Your task to perform on an android device: Go to calendar. Show me events next week Image 0: 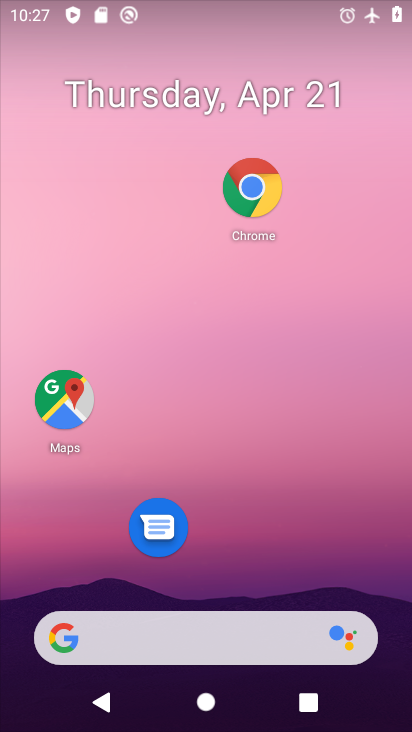
Step 0: drag from (275, 621) to (344, 167)
Your task to perform on an android device: Go to calendar. Show me events next week Image 1: 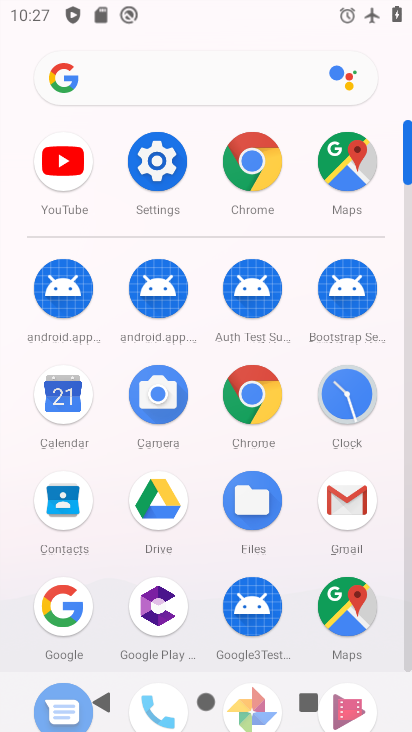
Step 1: click (67, 422)
Your task to perform on an android device: Go to calendar. Show me events next week Image 2: 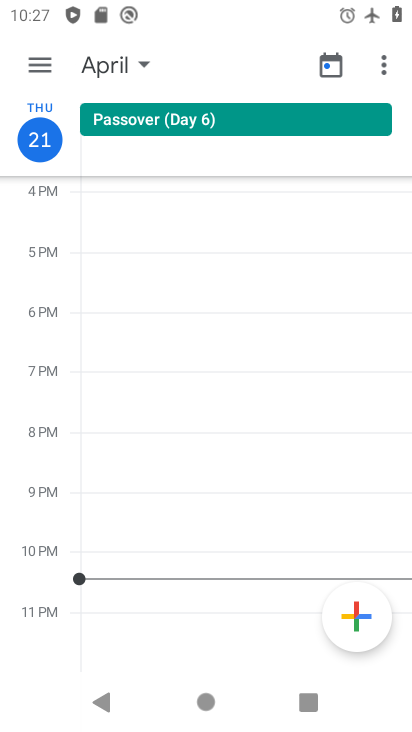
Step 2: click (148, 66)
Your task to perform on an android device: Go to calendar. Show me events next week Image 3: 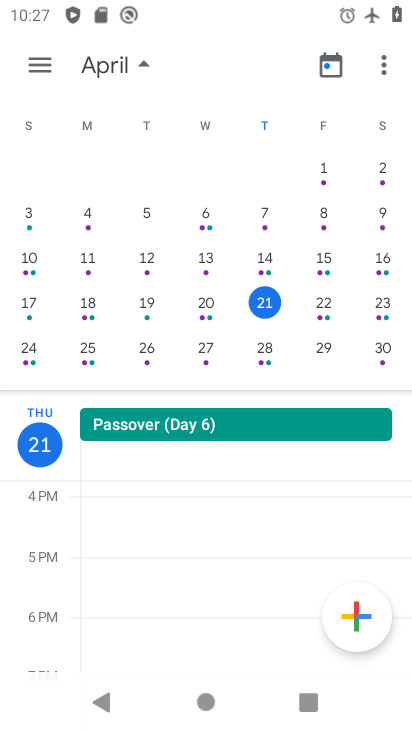
Step 3: click (347, 320)
Your task to perform on an android device: Go to calendar. Show me events next week Image 4: 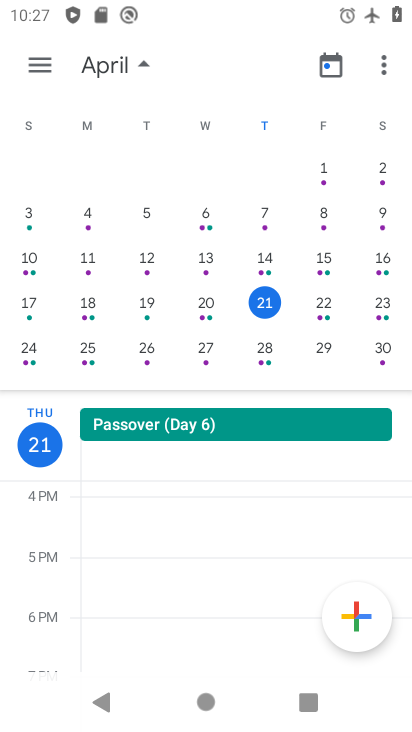
Step 4: click (32, 363)
Your task to perform on an android device: Go to calendar. Show me events next week Image 5: 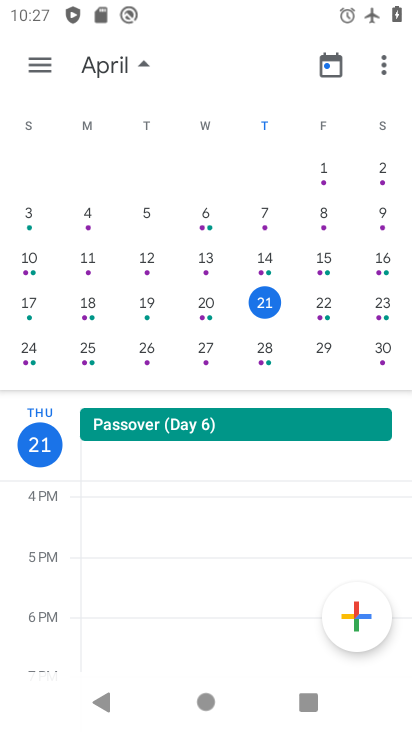
Step 5: click (32, 363)
Your task to perform on an android device: Go to calendar. Show me events next week Image 6: 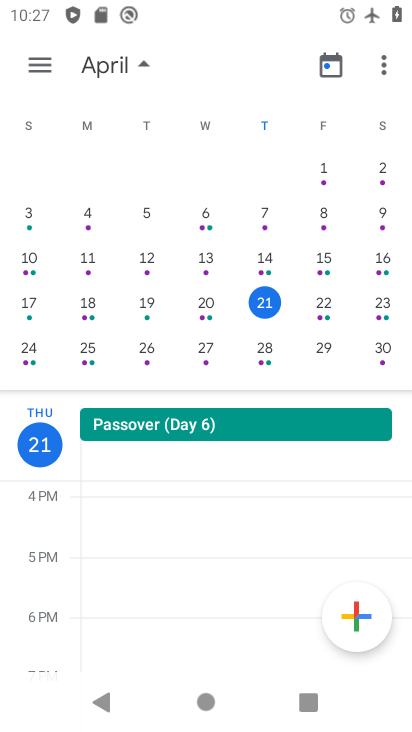
Step 6: click (33, 361)
Your task to perform on an android device: Go to calendar. Show me events next week Image 7: 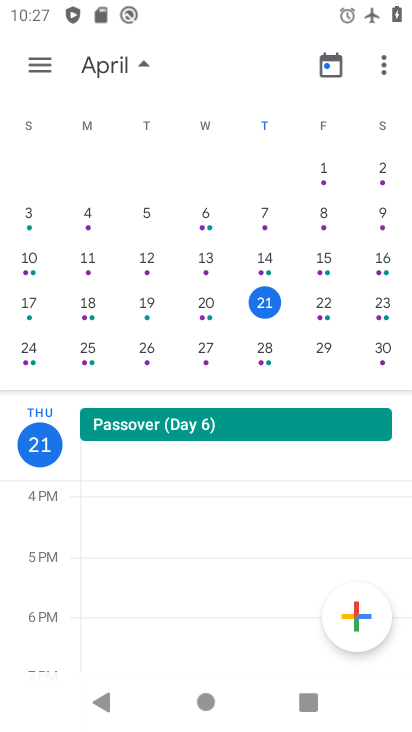
Step 7: click (33, 361)
Your task to perform on an android device: Go to calendar. Show me events next week Image 8: 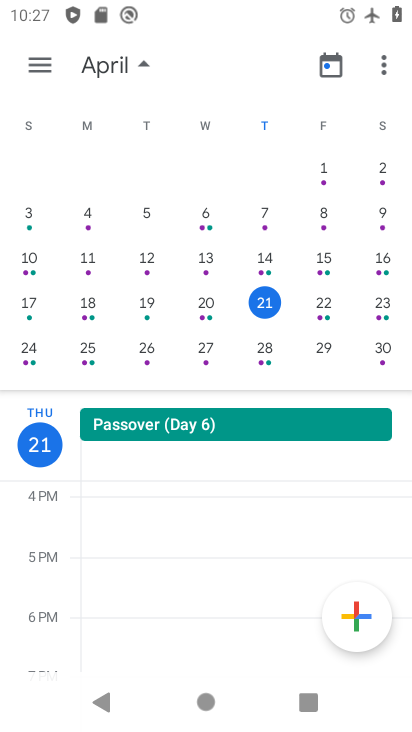
Step 8: click (30, 363)
Your task to perform on an android device: Go to calendar. Show me events next week Image 9: 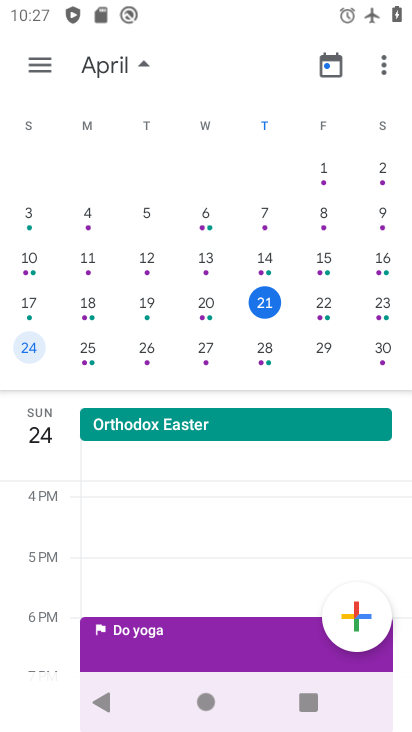
Step 9: task complete